Your task to perform on an android device: open a new tab in the chrome app Image 0: 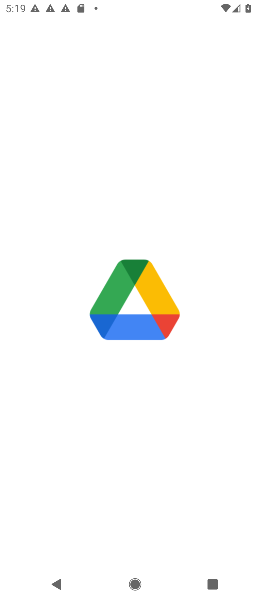
Step 0: press home button
Your task to perform on an android device: open a new tab in the chrome app Image 1: 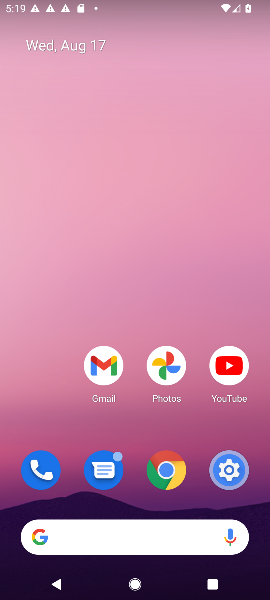
Step 1: click (171, 481)
Your task to perform on an android device: open a new tab in the chrome app Image 2: 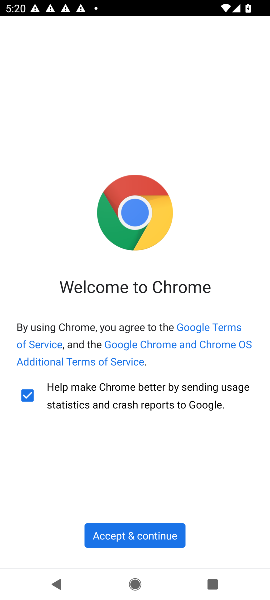
Step 2: click (172, 535)
Your task to perform on an android device: open a new tab in the chrome app Image 3: 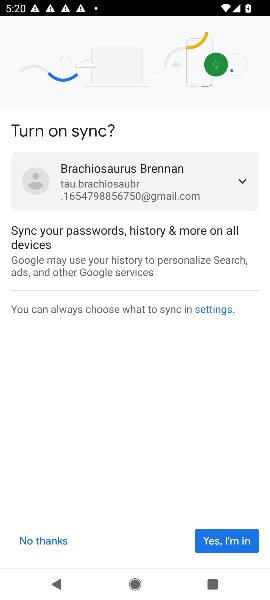
Step 3: click (236, 536)
Your task to perform on an android device: open a new tab in the chrome app Image 4: 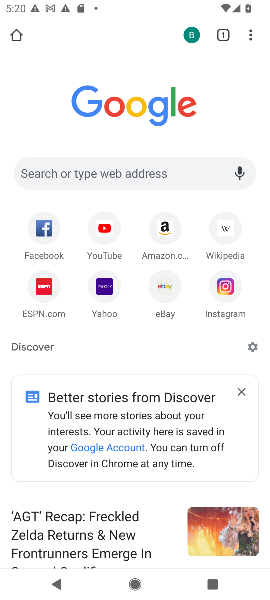
Step 4: click (255, 36)
Your task to perform on an android device: open a new tab in the chrome app Image 5: 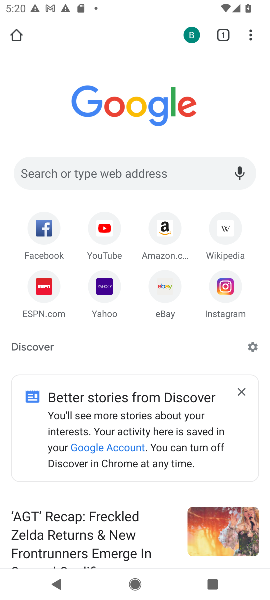
Step 5: click (245, 31)
Your task to perform on an android device: open a new tab in the chrome app Image 6: 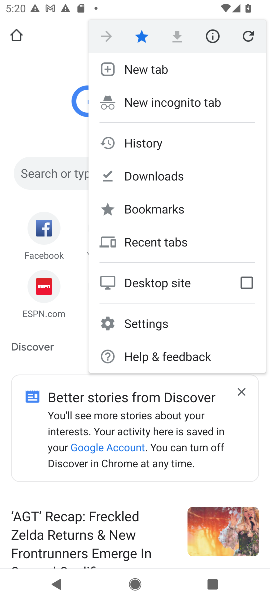
Step 6: click (153, 74)
Your task to perform on an android device: open a new tab in the chrome app Image 7: 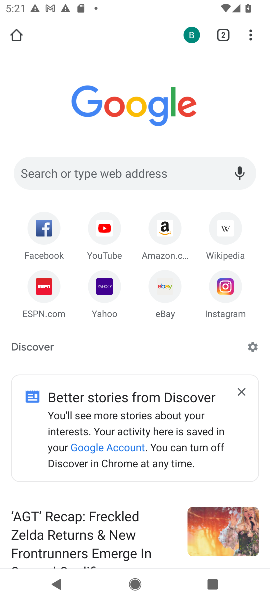
Step 7: task complete